Your task to perform on an android device: change the clock display to analog Image 0: 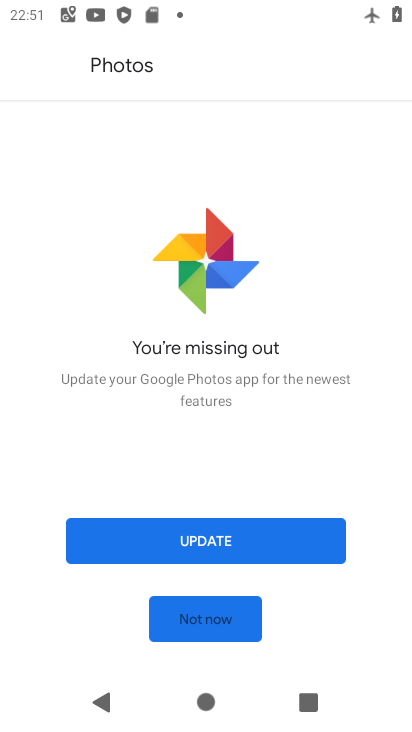
Step 0: press home button
Your task to perform on an android device: change the clock display to analog Image 1: 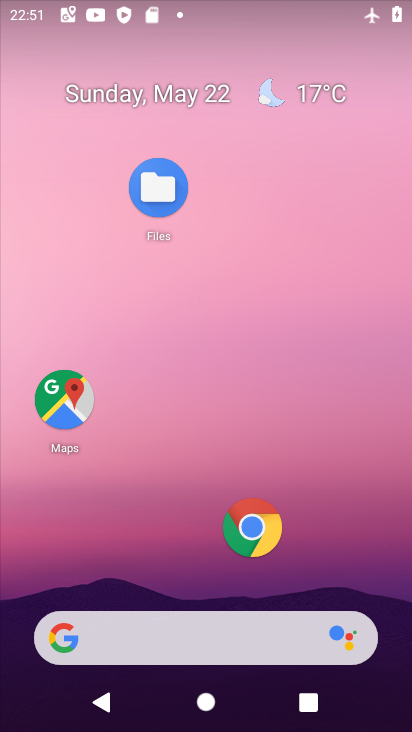
Step 1: drag from (180, 534) to (105, 106)
Your task to perform on an android device: change the clock display to analog Image 2: 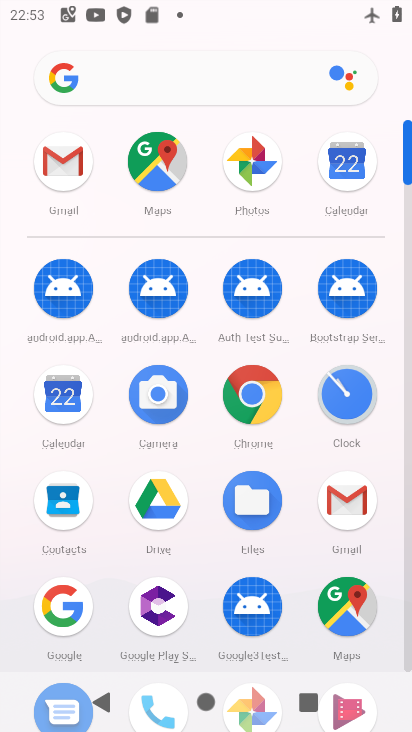
Step 2: click (356, 388)
Your task to perform on an android device: change the clock display to analog Image 3: 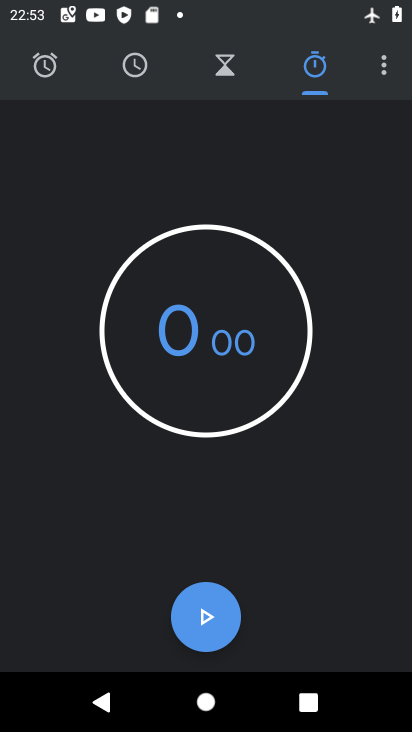
Step 3: click (376, 69)
Your task to perform on an android device: change the clock display to analog Image 4: 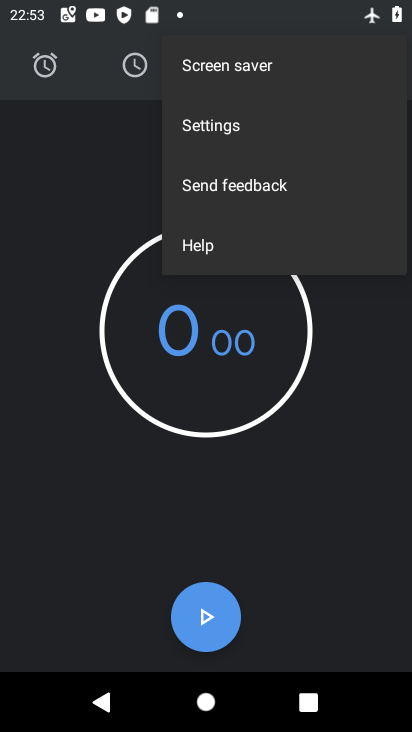
Step 4: click (222, 124)
Your task to perform on an android device: change the clock display to analog Image 5: 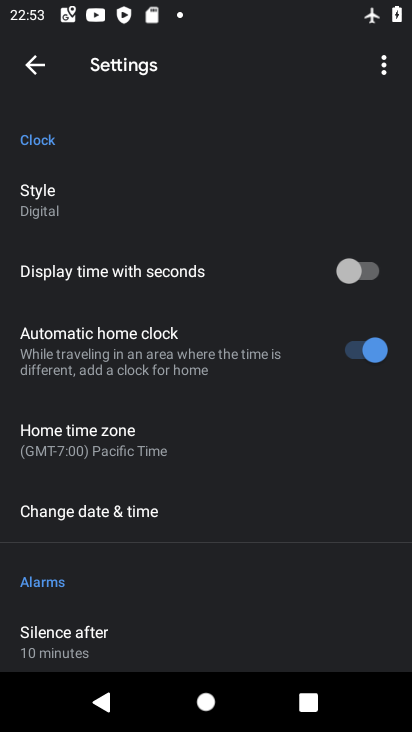
Step 5: click (46, 193)
Your task to perform on an android device: change the clock display to analog Image 6: 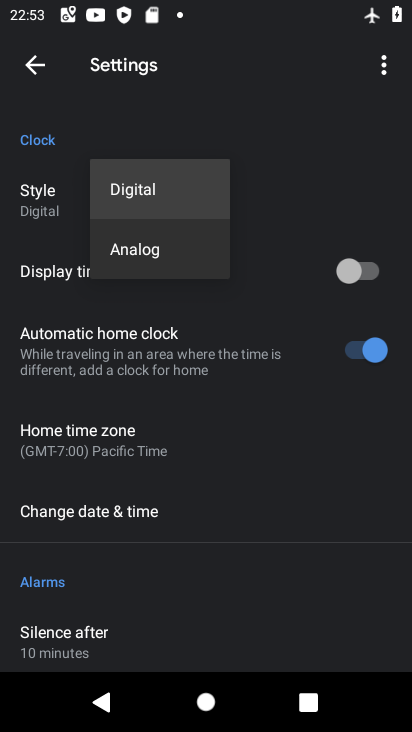
Step 6: click (117, 248)
Your task to perform on an android device: change the clock display to analog Image 7: 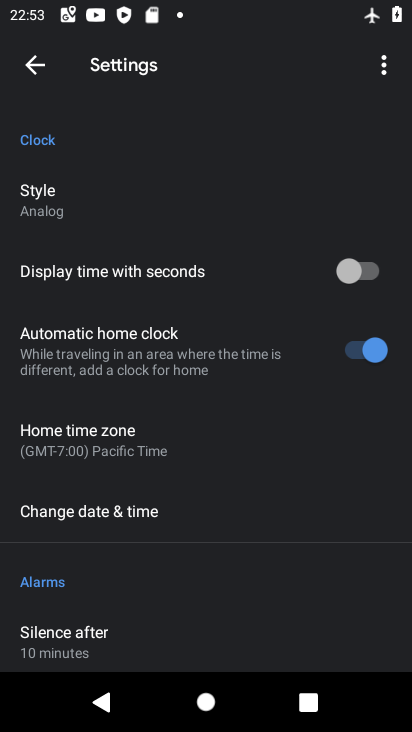
Step 7: task complete